Your task to perform on an android device: see creations saved in the google photos Image 0: 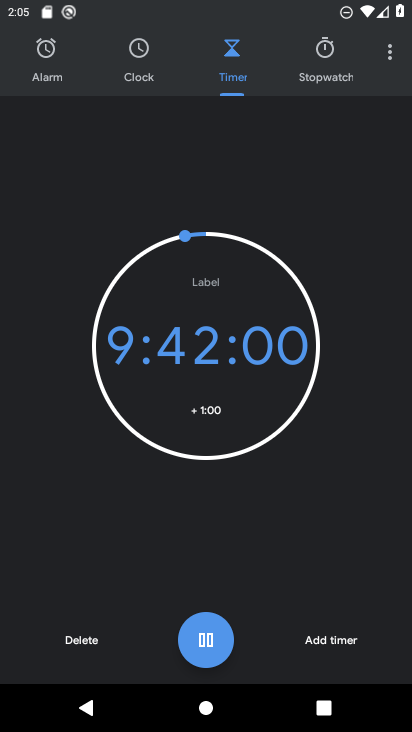
Step 0: press home button
Your task to perform on an android device: see creations saved in the google photos Image 1: 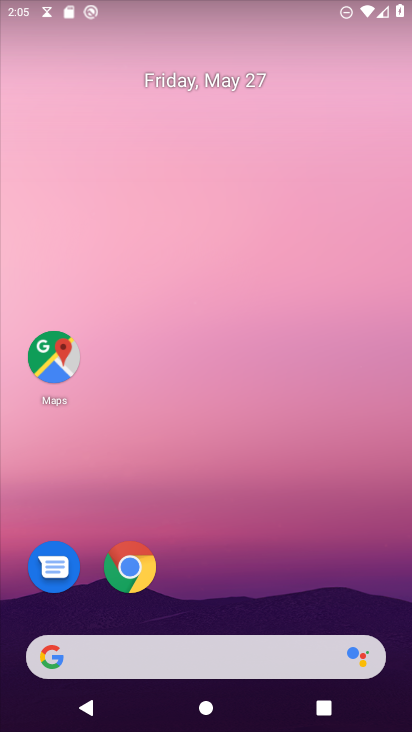
Step 1: drag from (229, 607) to (171, 182)
Your task to perform on an android device: see creations saved in the google photos Image 2: 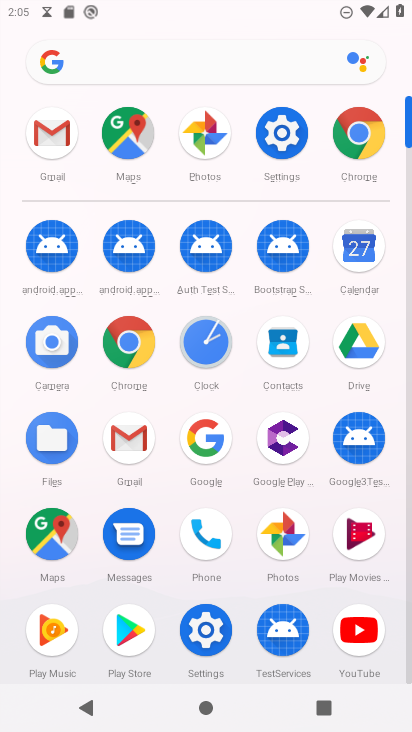
Step 2: click (209, 137)
Your task to perform on an android device: see creations saved in the google photos Image 3: 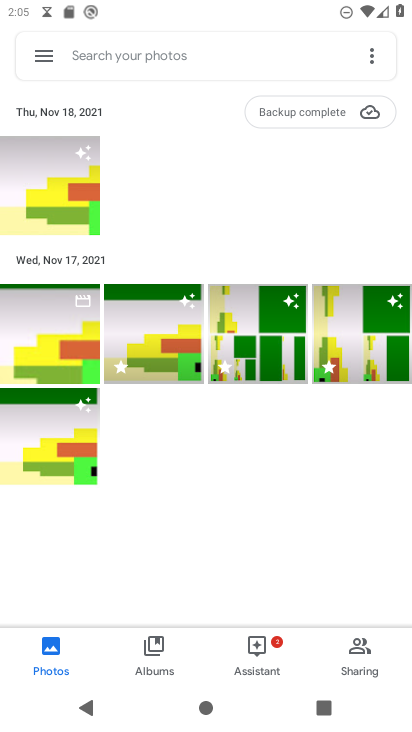
Step 3: click (134, 69)
Your task to perform on an android device: see creations saved in the google photos Image 4: 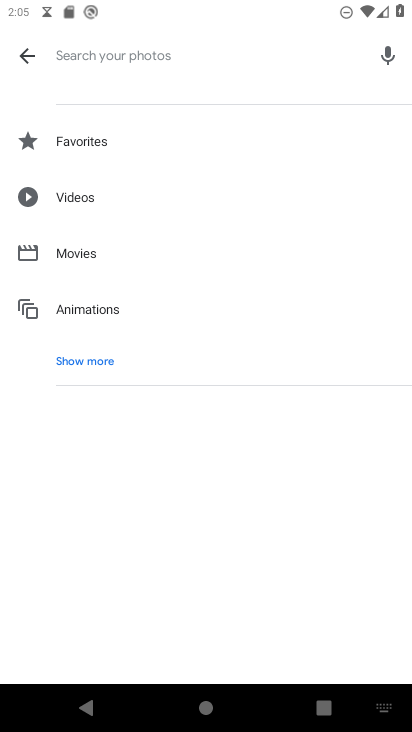
Step 4: click (126, 53)
Your task to perform on an android device: see creations saved in the google photos Image 5: 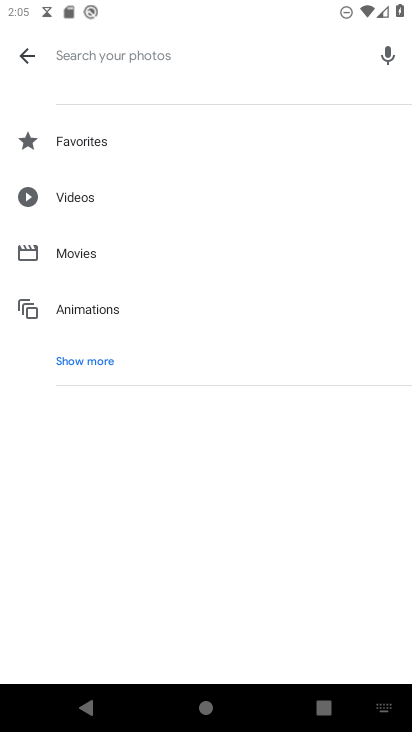
Step 5: click (72, 364)
Your task to perform on an android device: see creations saved in the google photos Image 6: 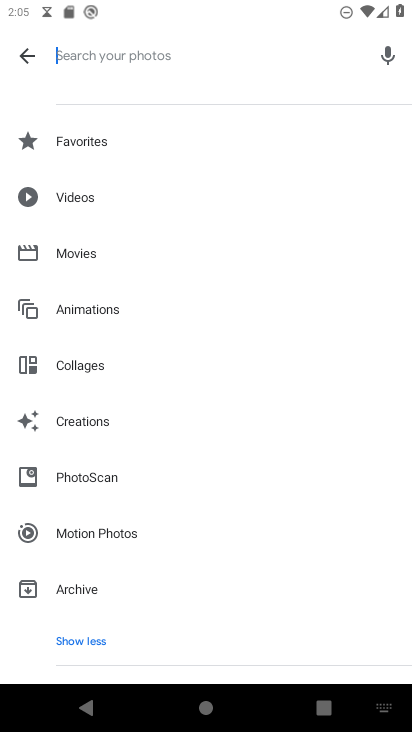
Step 6: click (84, 428)
Your task to perform on an android device: see creations saved in the google photos Image 7: 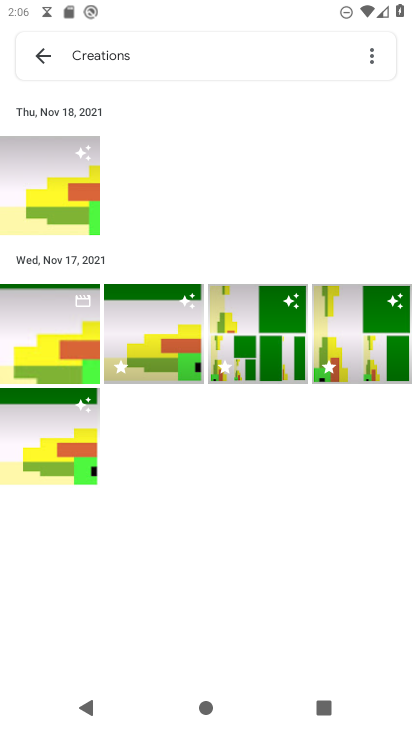
Step 7: task complete